Your task to perform on an android device: set the stopwatch Image 0: 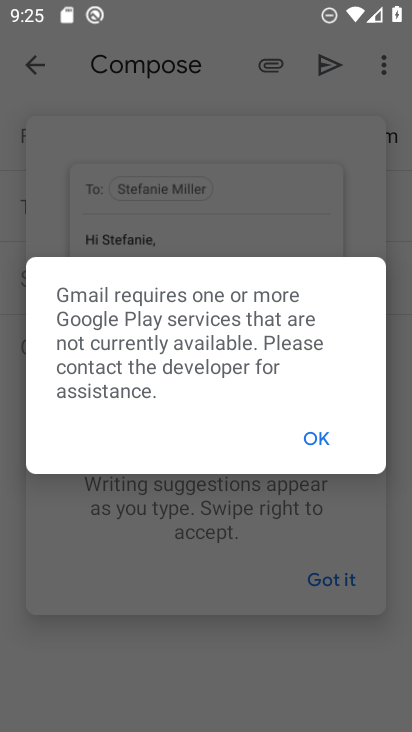
Step 0: press home button
Your task to perform on an android device: set the stopwatch Image 1: 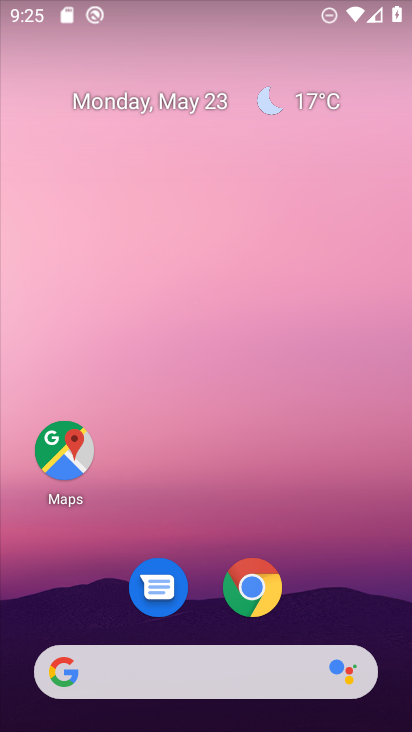
Step 1: drag from (157, 520) to (233, 12)
Your task to perform on an android device: set the stopwatch Image 2: 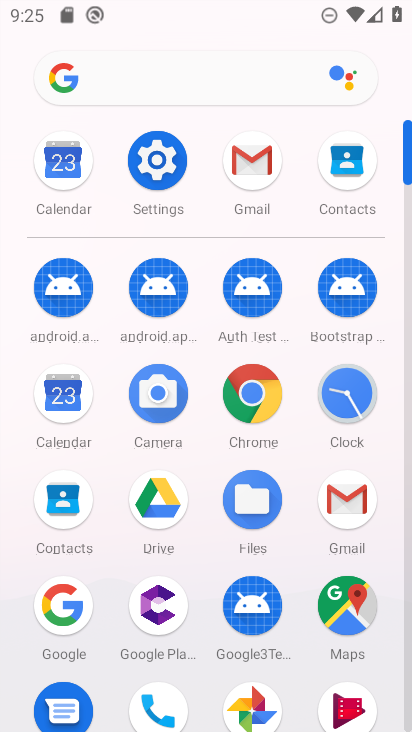
Step 2: click (351, 417)
Your task to perform on an android device: set the stopwatch Image 3: 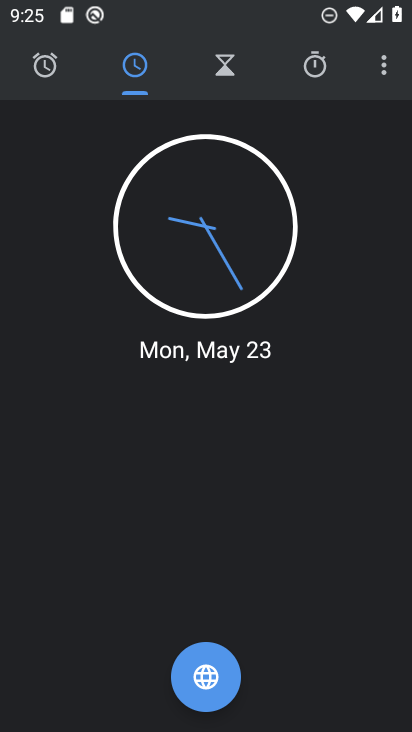
Step 3: click (310, 68)
Your task to perform on an android device: set the stopwatch Image 4: 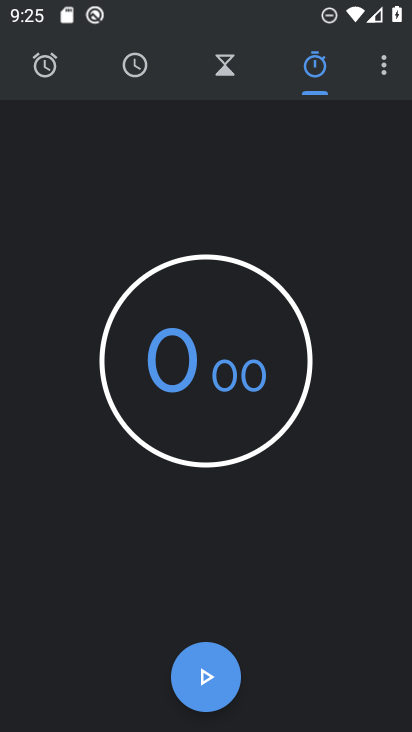
Step 4: click (188, 359)
Your task to perform on an android device: set the stopwatch Image 5: 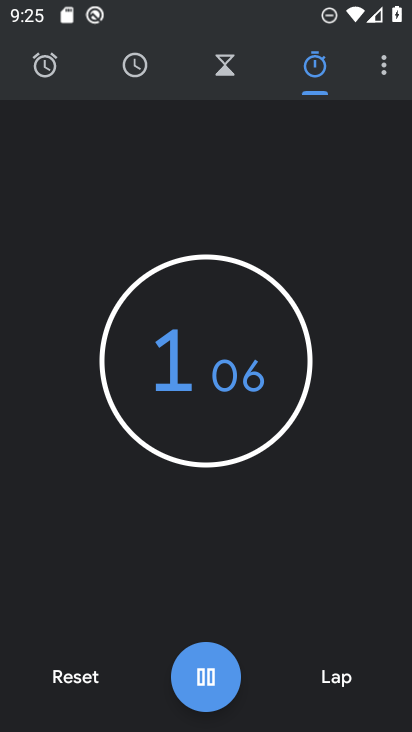
Step 5: click (188, 359)
Your task to perform on an android device: set the stopwatch Image 6: 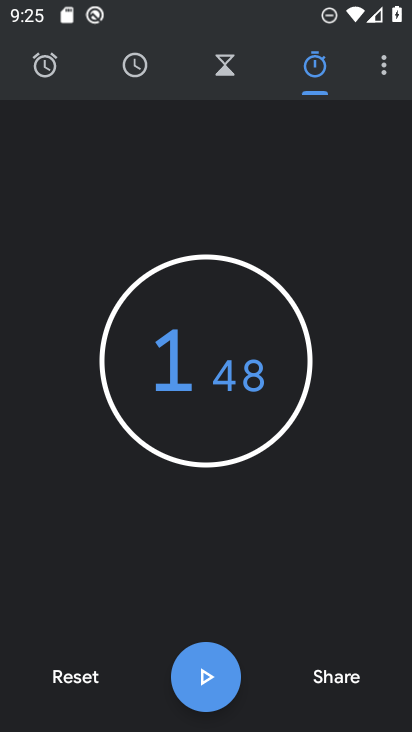
Step 6: task complete